Your task to perform on an android device: turn pop-ups on in chrome Image 0: 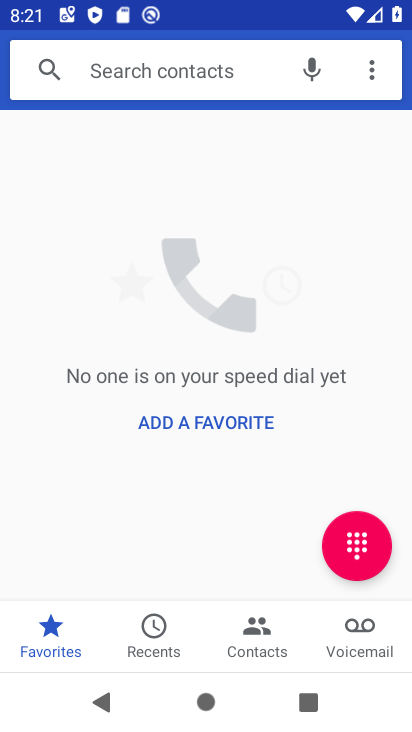
Step 0: press home button
Your task to perform on an android device: turn pop-ups on in chrome Image 1: 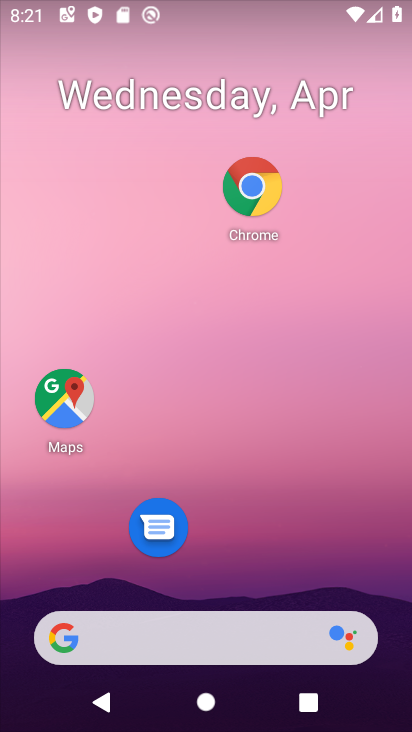
Step 1: drag from (308, 234) to (313, 141)
Your task to perform on an android device: turn pop-ups on in chrome Image 2: 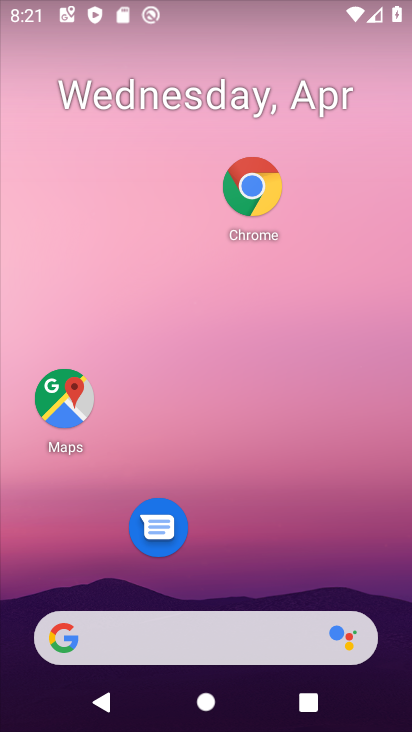
Step 2: drag from (248, 477) to (221, 97)
Your task to perform on an android device: turn pop-ups on in chrome Image 3: 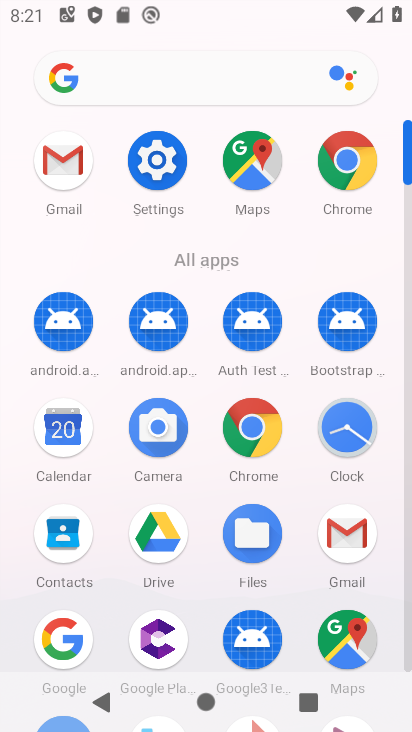
Step 3: click (350, 153)
Your task to perform on an android device: turn pop-ups on in chrome Image 4: 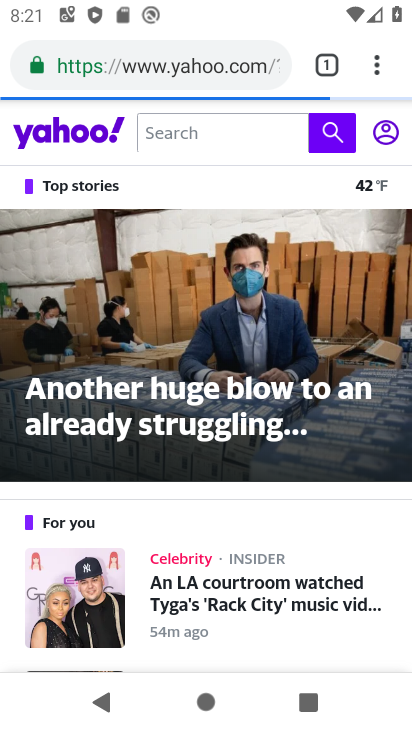
Step 4: click (378, 62)
Your task to perform on an android device: turn pop-ups on in chrome Image 5: 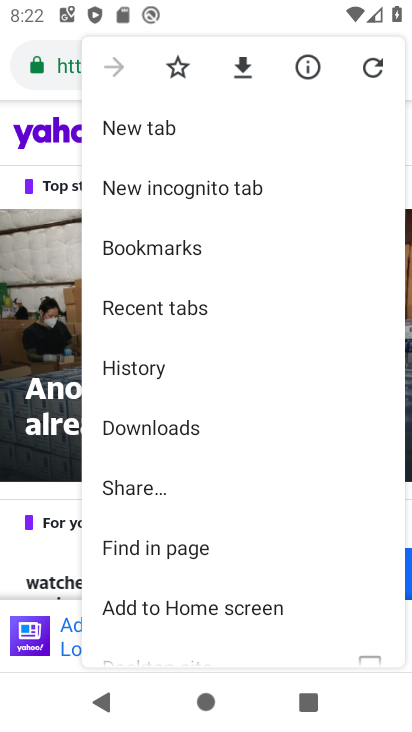
Step 5: drag from (272, 582) to (289, 171)
Your task to perform on an android device: turn pop-ups on in chrome Image 6: 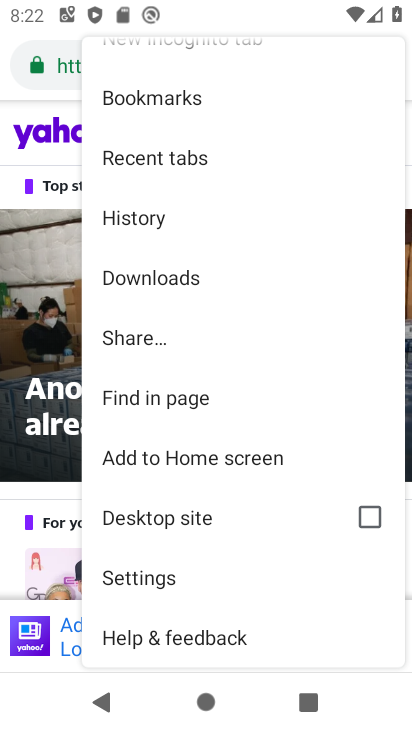
Step 6: click (151, 569)
Your task to perform on an android device: turn pop-ups on in chrome Image 7: 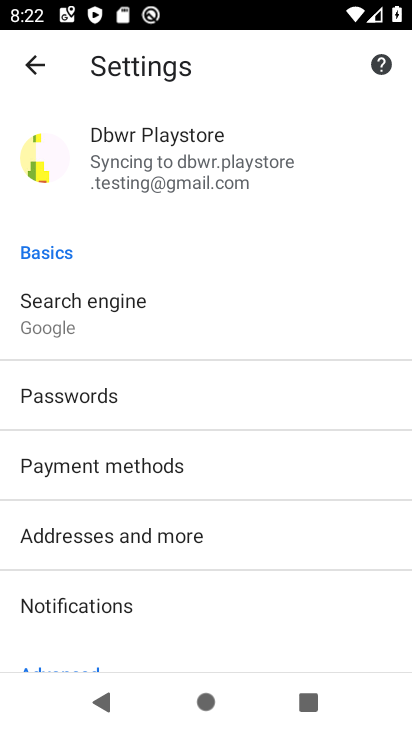
Step 7: drag from (266, 590) to (304, 184)
Your task to perform on an android device: turn pop-ups on in chrome Image 8: 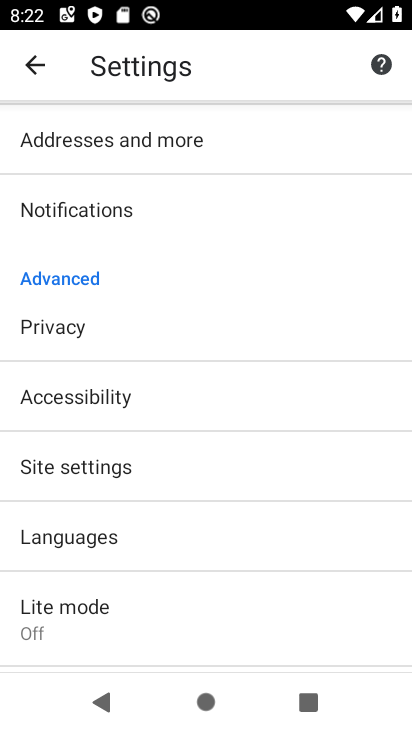
Step 8: click (215, 465)
Your task to perform on an android device: turn pop-ups on in chrome Image 9: 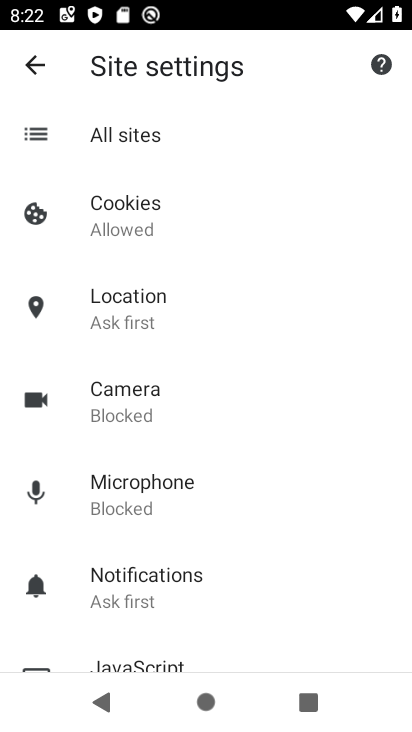
Step 9: drag from (174, 600) to (262, 222)
Your task to perform on an android device: turn pop-ups on in chrome Image 10: 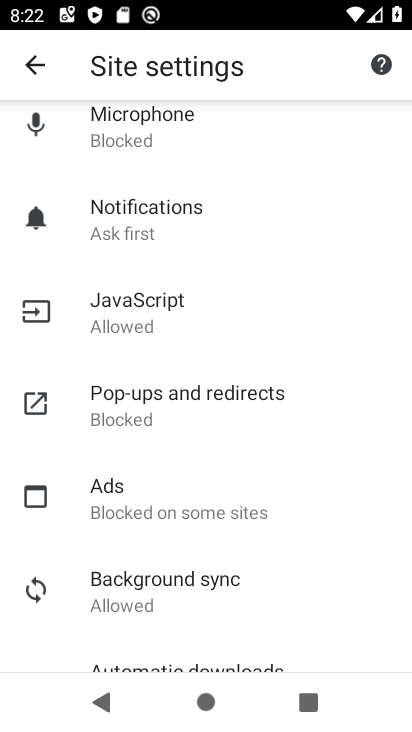
Step 10: click (239, 402)
Your task to perform on an android device: turn pop-ups on in chrome Image 11: 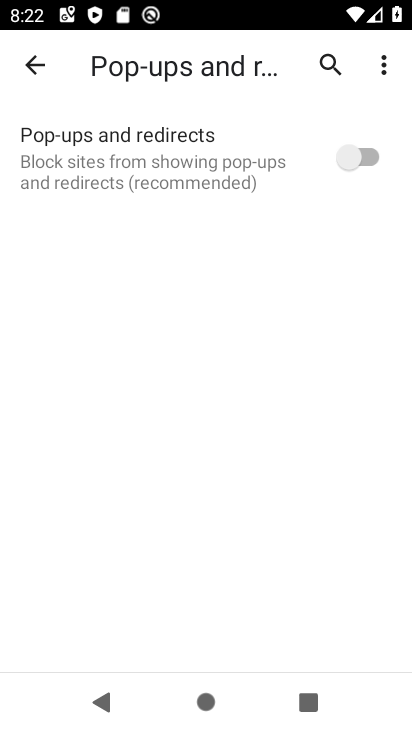
Step 11: click (377, 159)
Your task to perform on an android device: turn pop-ups on in chrome Image 12: 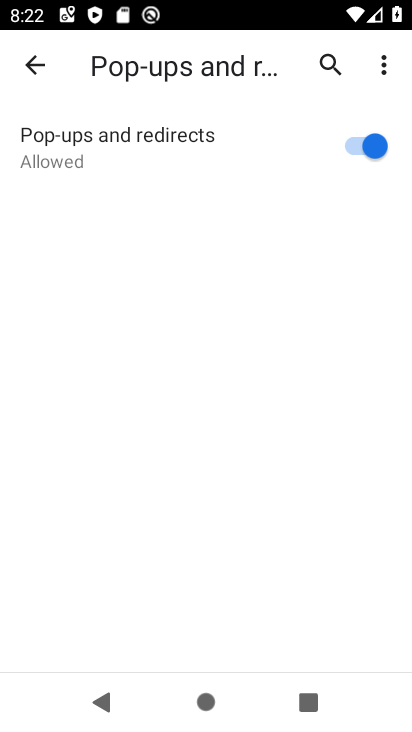
Step 12: task complete